Your task to perform on an android device: toggle javascript in the chrome app Image 0: 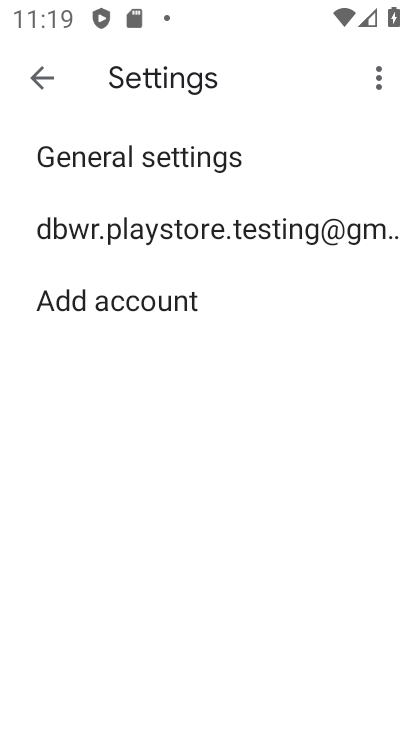
Step 0: press home button
Your task to perform on an android device: toggle javascript in the chrome app Image 1: 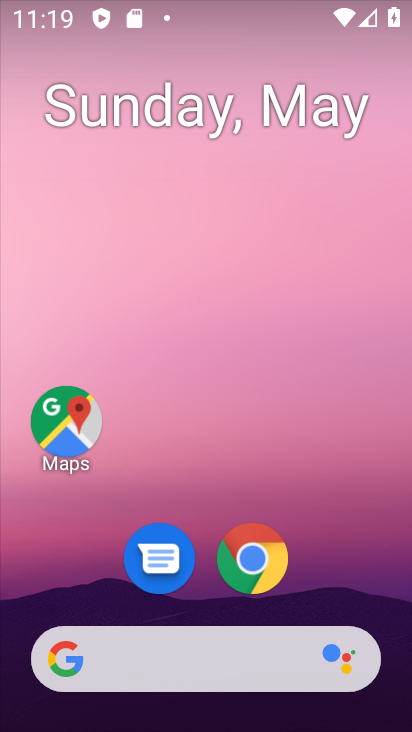
Step 1: drag from (379, 575) to (378, 142)
Your task to perform on an android device: toggle javascript in the chrome app Image 2: 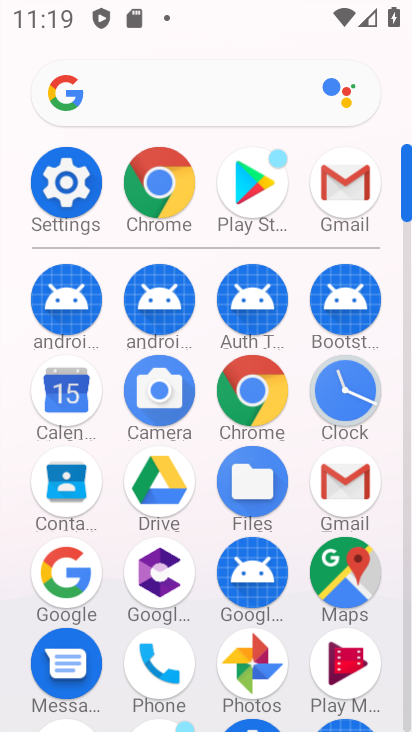
Step 2: click (270, 396)
Your task to perform on an android device: toggle javascript in the chrome app Image 3: 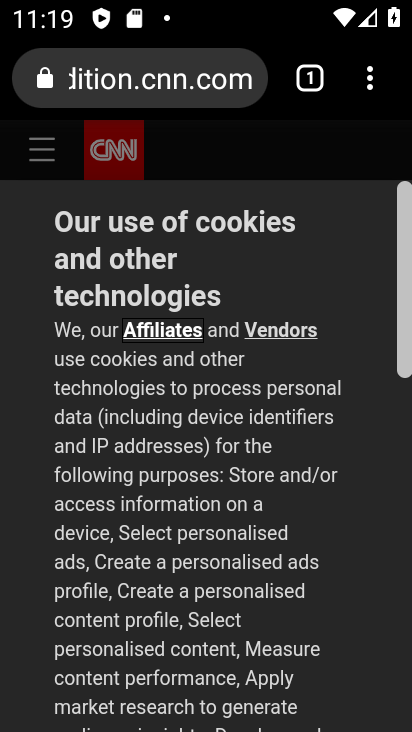
Step 3: click (371, 85)
Your task to perform on an android device: toggle javascript in the chrome app Image 4: 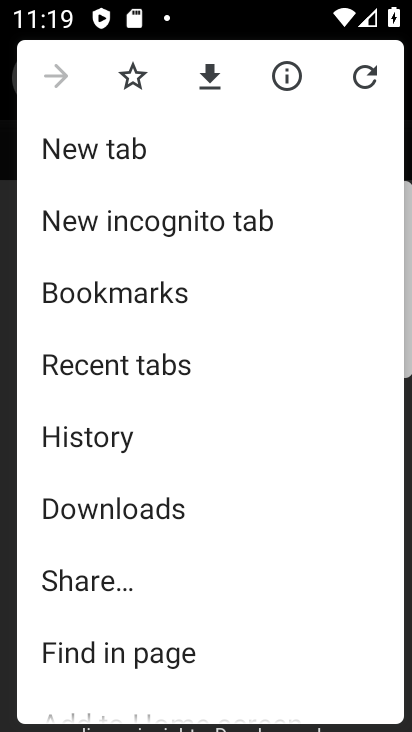
Step 4: drag from (316, 663) to (333, 476)
Your task to perform on an android device: toggle javascript in the chrome app Image 5: 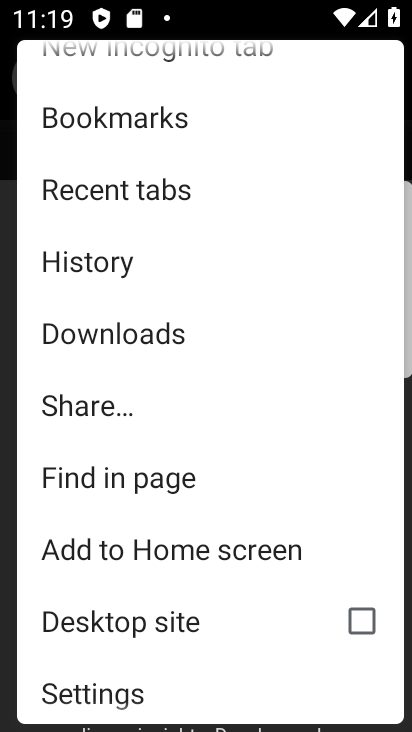
Step 5: drag from (312, 625) to (310, 397)
Your task to perform on an android device: toggle javascript in the chrome app Image 6: 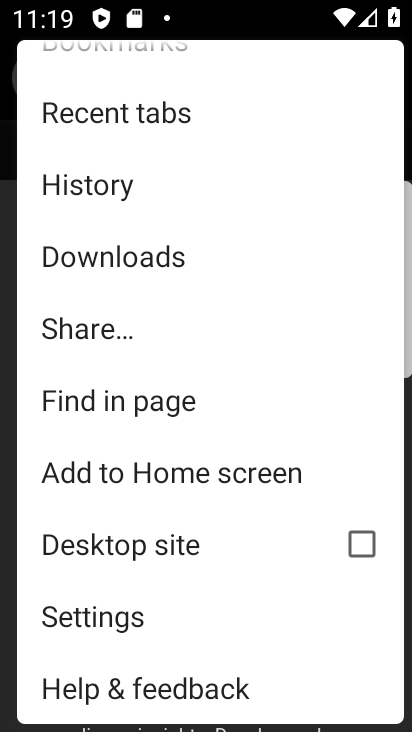
Step 6: click (139, 626)
Your task to perform on an android device: toggle javascript in the chrome app Image 7: 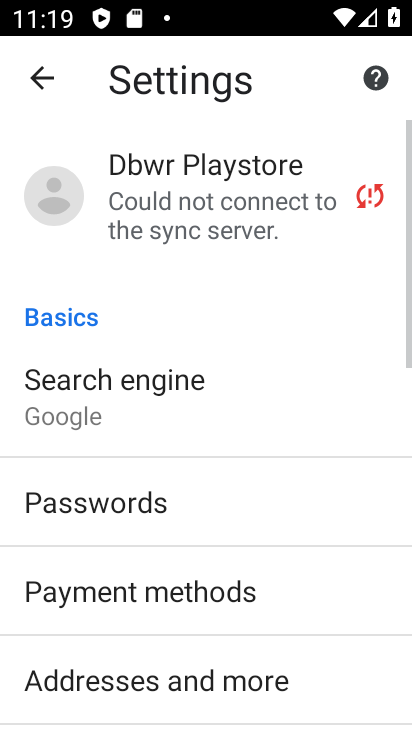
Step 7: drag from (335, 632) to (334, 474)
Your task to perform on an android device: toggle javascript in the chrome app Image 8: 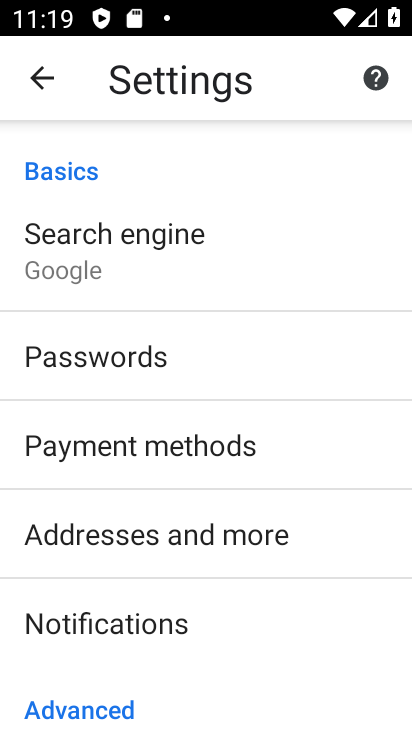
Step 8: drag from (320, 658) to (334, 498)
Your task to perform on an android device: toggle javascript in the chrome app Image 9: 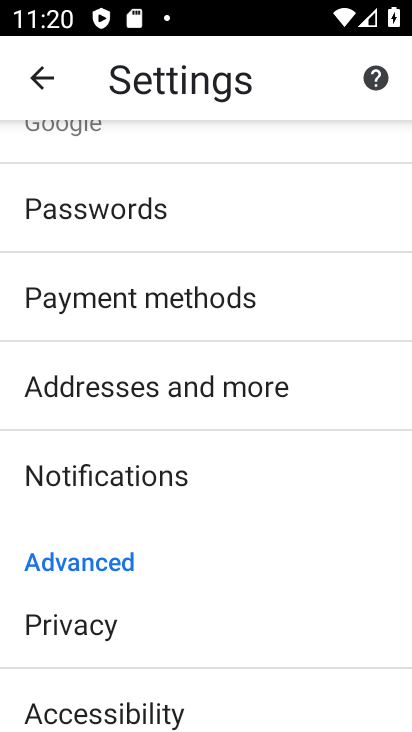
Step 9: drag from (332, 673) to (334, 523)
Your task to perform on an android device: toggle javascript in the chrome app Image 10: 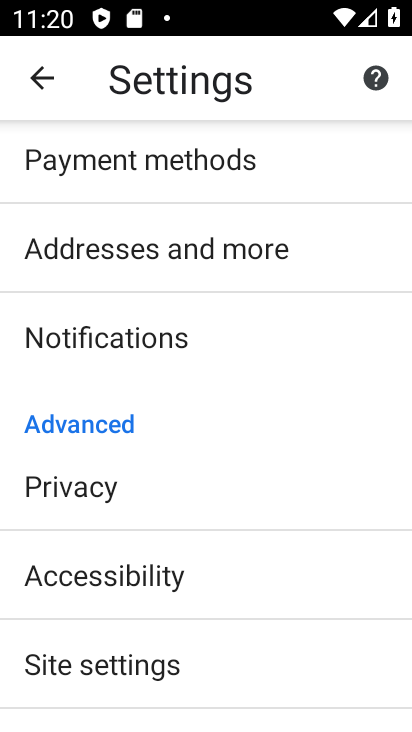
Step 10: drag from (317, 639) to (310, 521)
Your task to perform on an android device: toggle javascript in the chrome app Image 11: 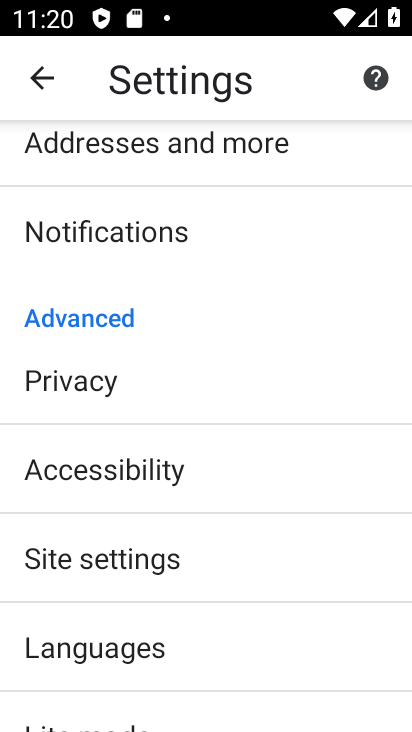
Step 11: click (258, 561)
Your task to perform on an android device: toggle javascript in the chrome app Image 12: 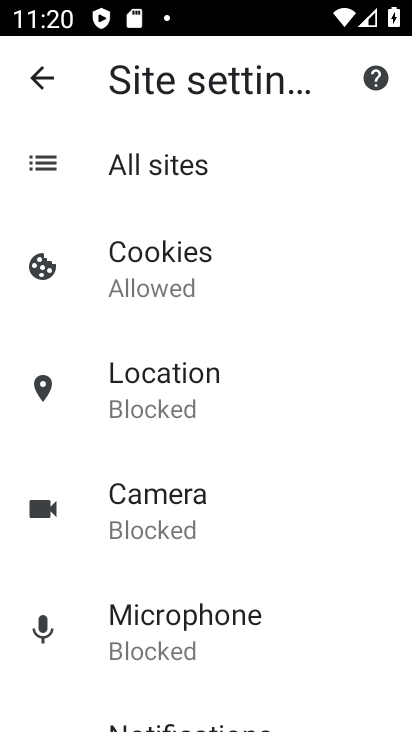
Step 12: drag from (317, 613) to (323, 431)
Your task to perform on an android device: toggle javascript in the chrome app Image 13: 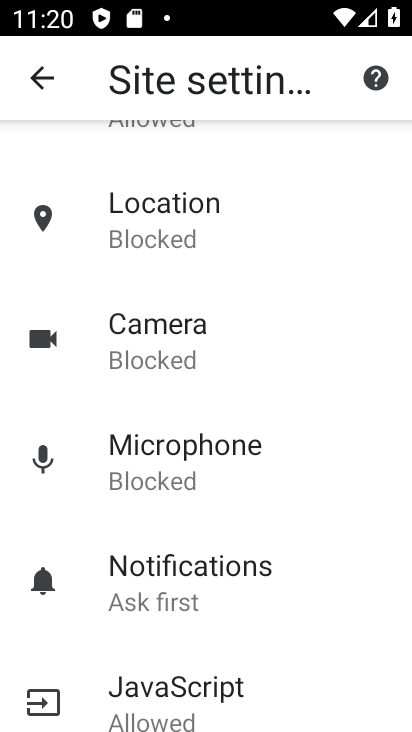
Step 13: drag from (345, 656) to (332, 445)
Your task to perform on an android device: toggle javascript in the chrome app Image 14: 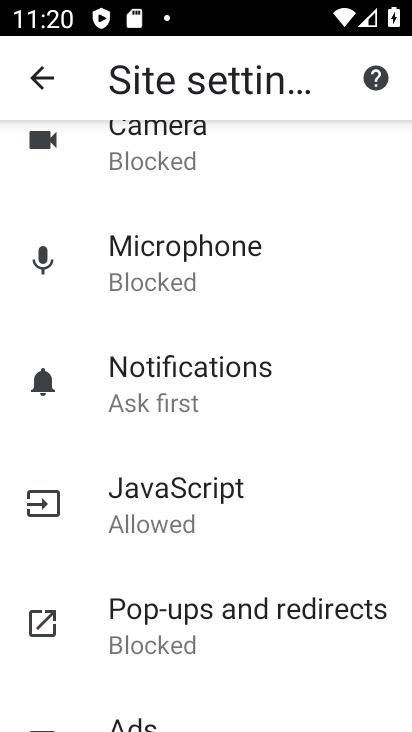
Step 14: drag from (306, 699) to (309, 462)
Your task to perform on an android device: toggle javascript in the chrome app Image 15: 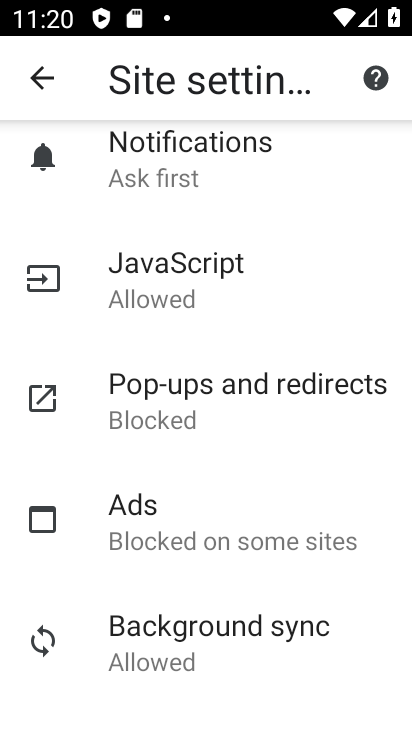
Step 15: drag from (290, 457) to (330, 237)
Your task to perform on an android device: toggle javascript in the chrome app Image 16: 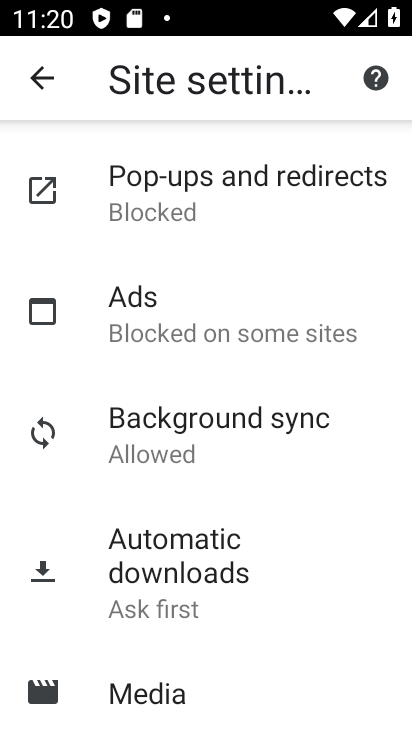
Step 16: drag from (313, 621) to (324, 428)
Your task to perform on an android device: toggle javascript in the chrome app Image 17: 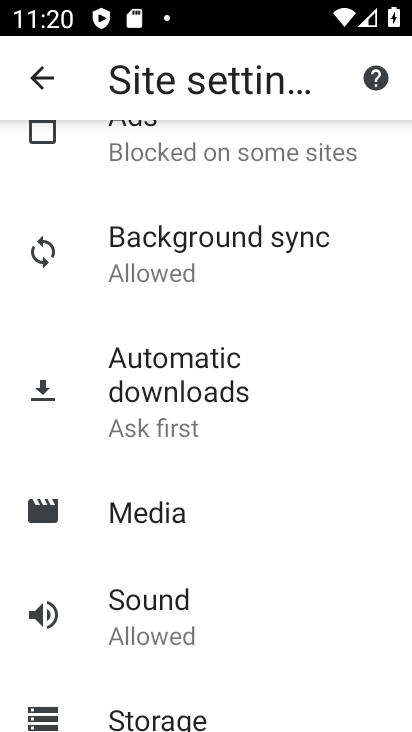
Step 17: drag from (355, 269) to (344, 451)
Your task to perform on an android device: toggle javascript in the chrome app Image 18: 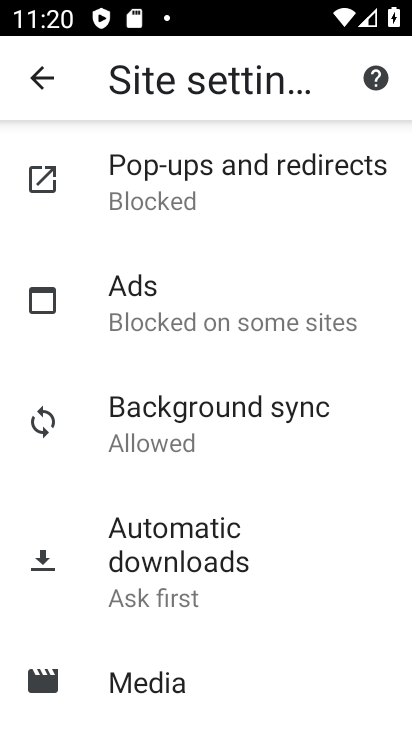
Step 18: drag from (361, 254) to (356, 417)
Your task to perform on an android device: toggle javascript in the chrome app Image 19: 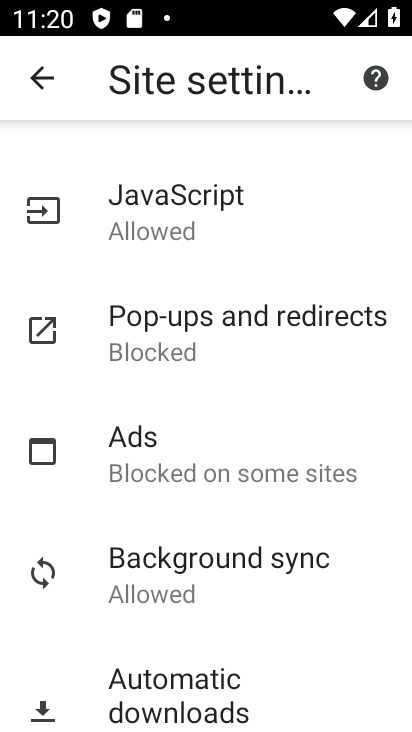
Step 19: drag from (367, 213) to (369, 477)
Your task to perform on an android device: toggle javascript in the chrome app Image 20: 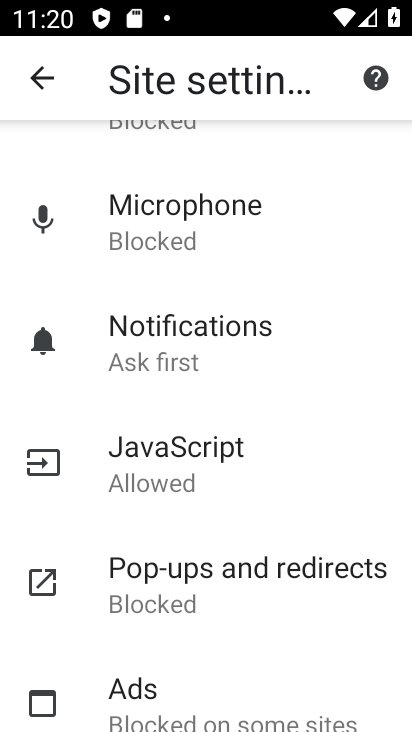
Step 20: click (182, 486)
Your task to perform on an android device: toggle javascript in the chrome app Image 21: 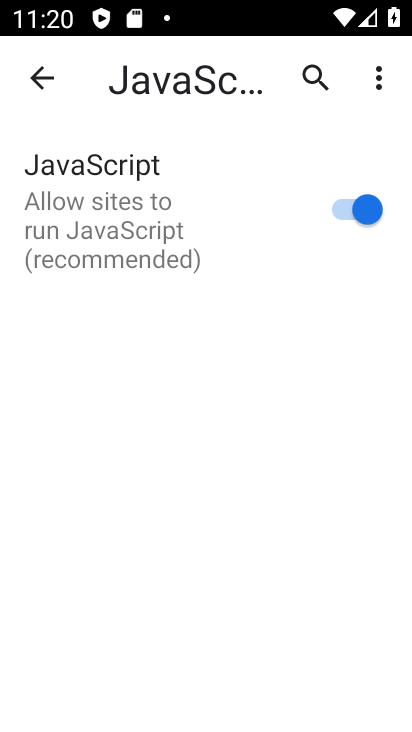
Step 21: click (351, 208)
Your task to perform on an android device: toggle javascript in the chrome app Image 22: 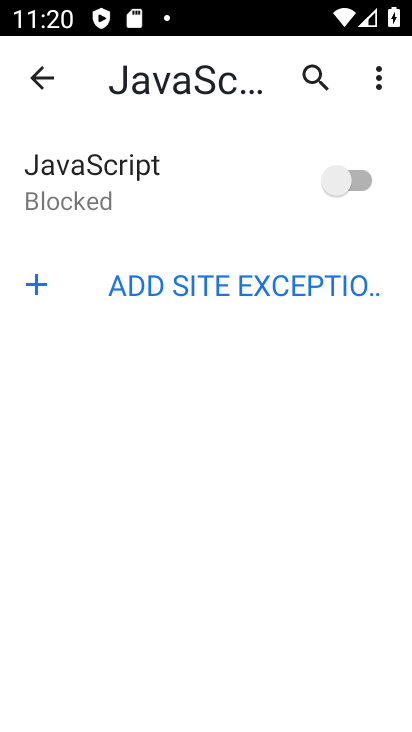
Step 22: task complete